Your task to perform on an android device: turn pop-ups off in chrome Image 0: 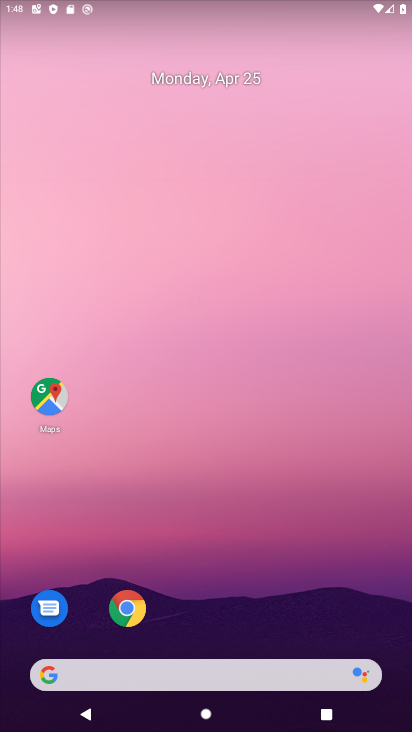
Step 0: click (119, 615)
Your task to perform on an android device: turn pop-ups off in chrome Image 1: 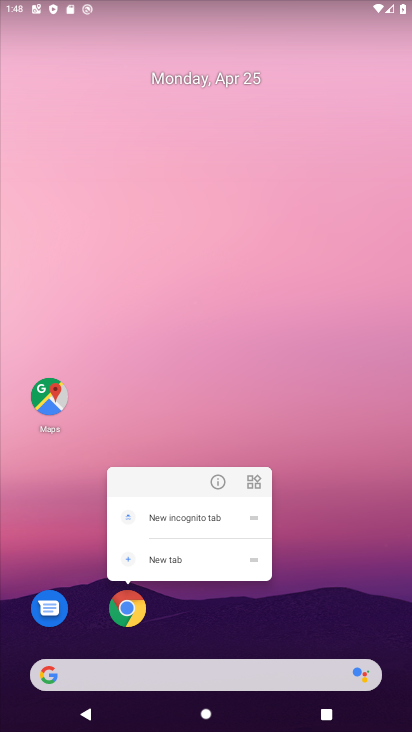
Step 1: click (217, 480)
Your task to perform on an android device: turn pop-ups off in chrome Image 2: 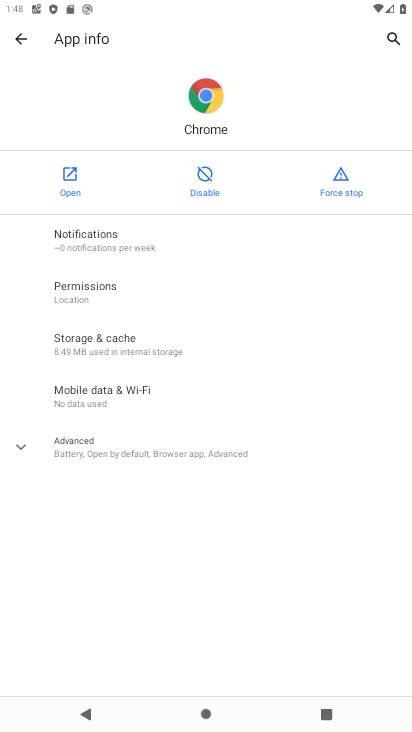
Step 2: click (56, 182)
Your task to perform on an android device: turn pop-ups off in chrome Image 3: 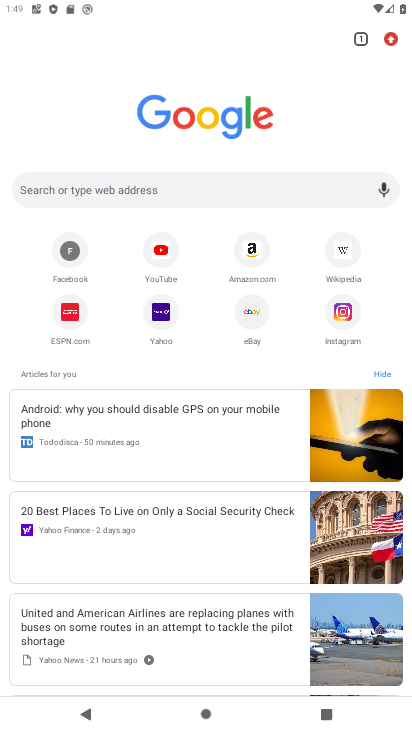
Step 3: click (391, 39)
Your task to perform on an android device: turn pop-ups off in chrome Image 4: 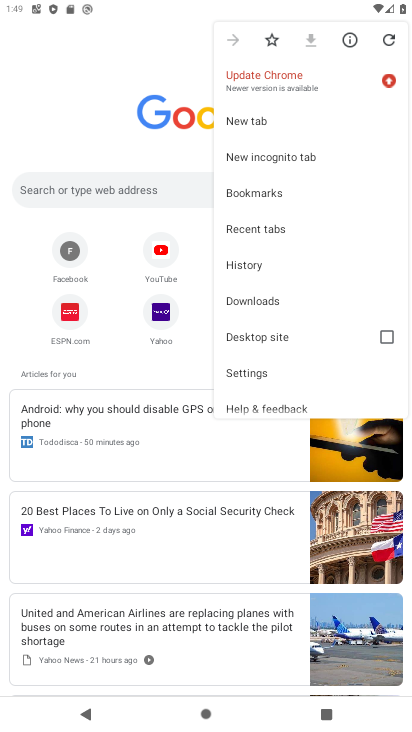
Step 4: click (256, 367)
Your task to perform on an android device: turn pop-ups off in chrome Image 5: 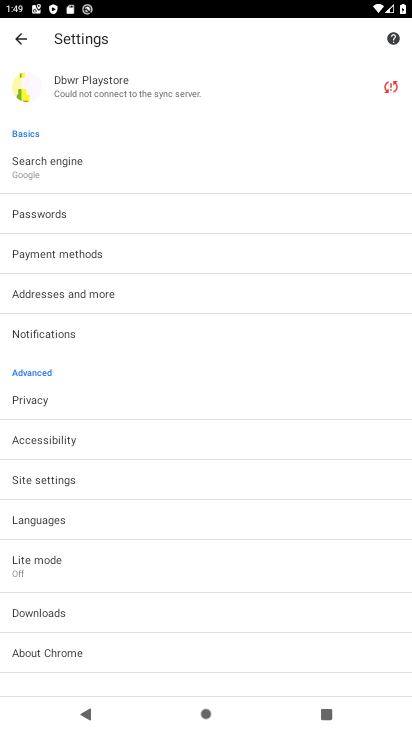
Step 5: click (53, 479)
Your task to perform on an android device: turn pop-ups off in chrome Image 6: 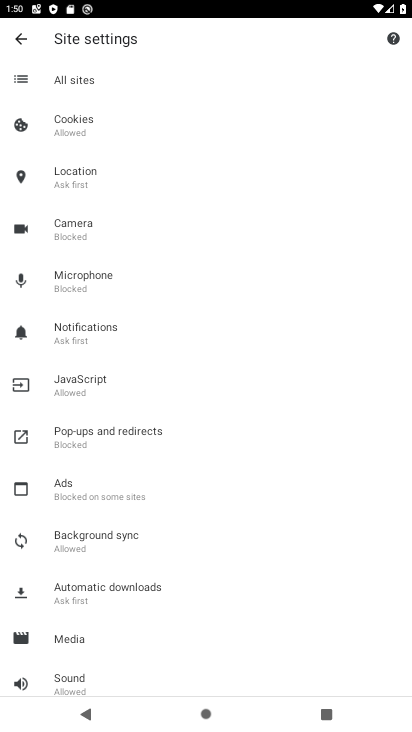
Step 6: click (132, 438)
Your task to perform on an android device: turn pop-ups off in chrome Image 7: 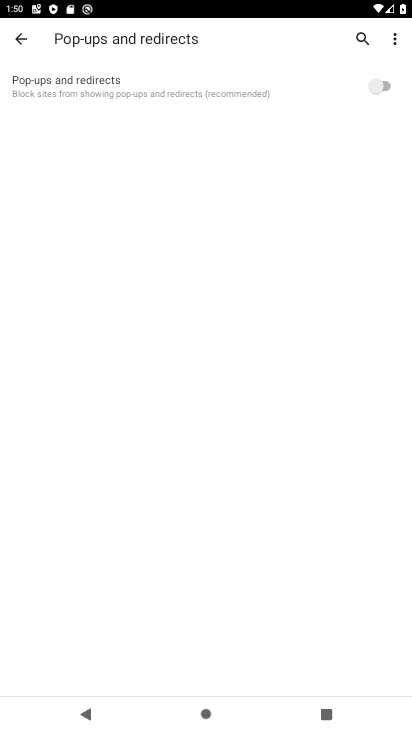
Step 7: task complete